Your task to perform on an android device: turn on improve location accuracy Image 0: 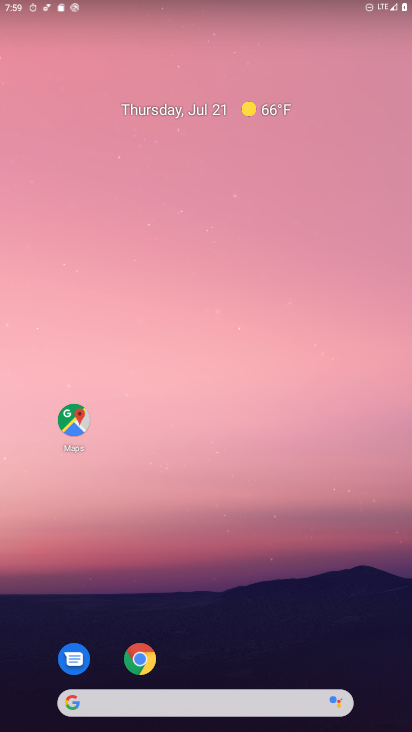
Step 0: drag from (214, 641) to (359, 203)
Your task to perform on an android device: turn on improve location accuracy Image 1: 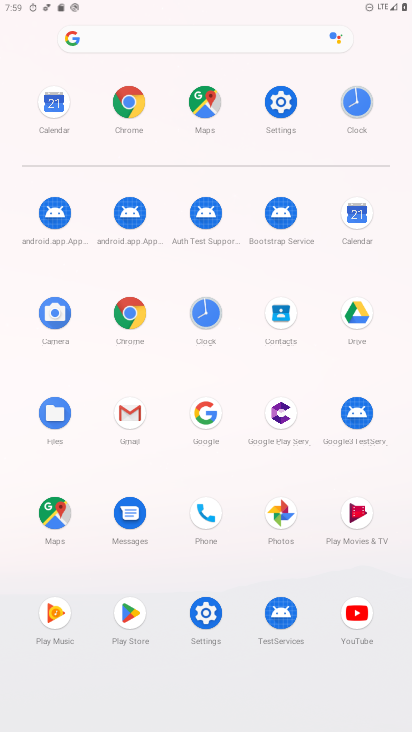
Step 1: click (200, 620)
Your task to perform on an android device: turn on improve location accuracy Image 2: 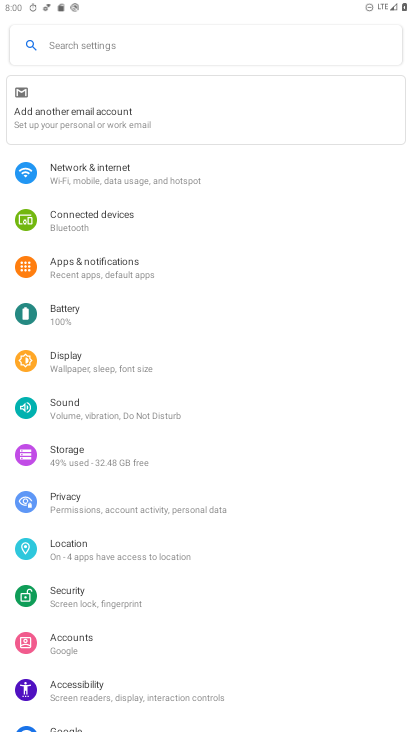
Step 2: click (110, 549)
Your task to perform on an android device: turn on improve location accuracy Image 3: 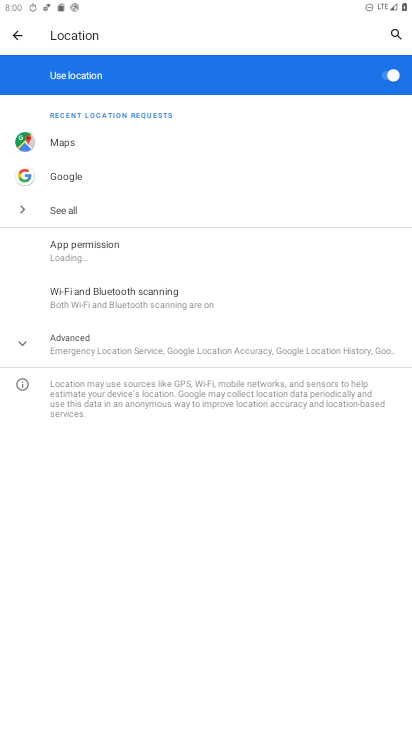
Step 3: click (121, 348)
Your task to perform on an android device: turn on improve location accuracy Image 4: 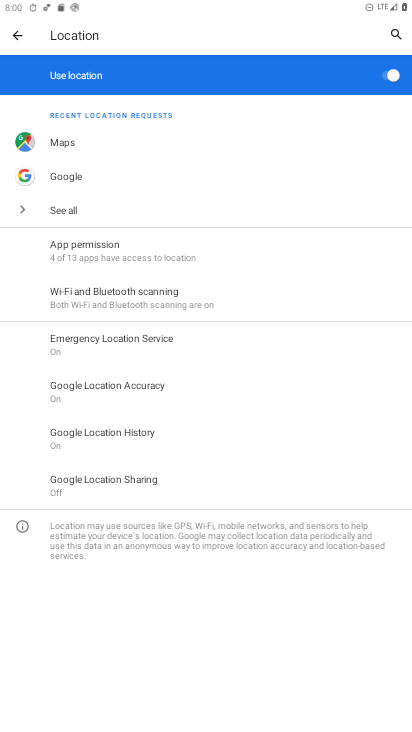
Step 4: click (124, 397)
Your task to perform on an android device: turn on improve location accuracy Image 5: 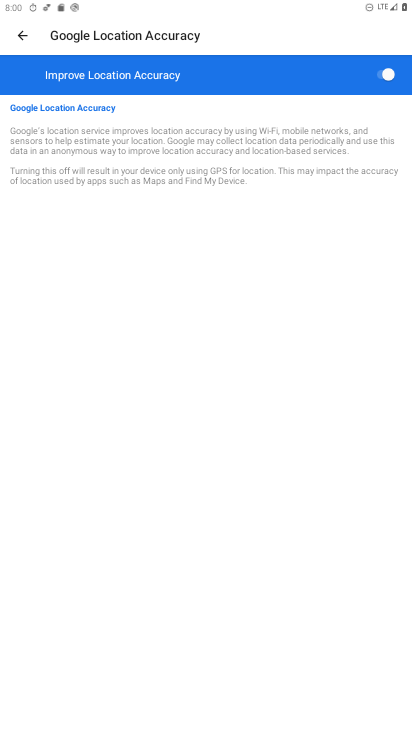
Step 5: task complete